Your task to perform on an android device: Search for "logitech g pro" on costco.com, select the first entry, add it to the cart, then select checkout. Image 0: 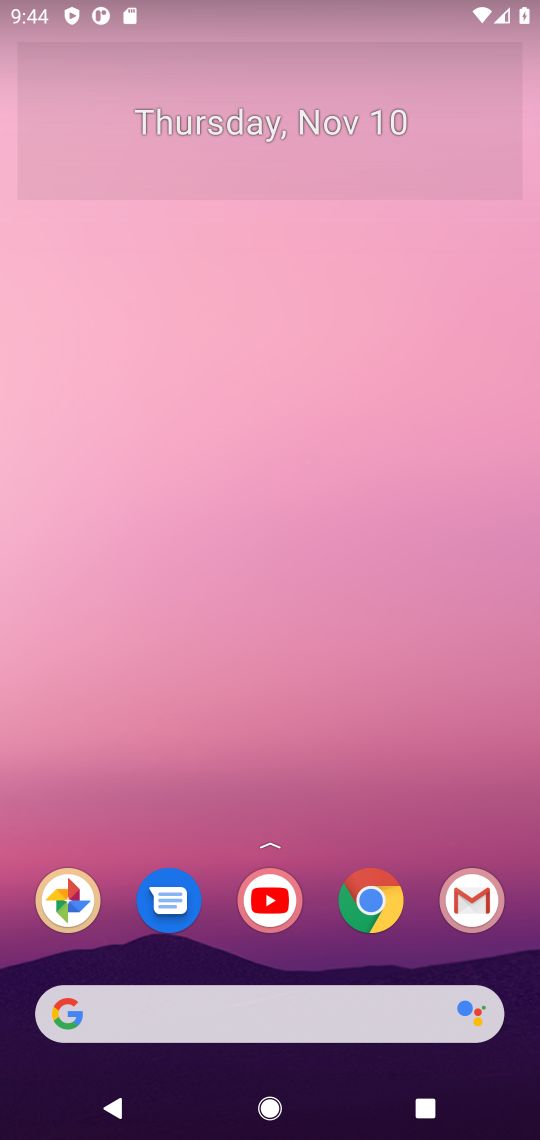
Step 0: click (371, 898)
Your task to perform on an android device: Search for "logitech g pro" on costco.com, select the first entry, add it to the cart, then select checkout. Image 1: 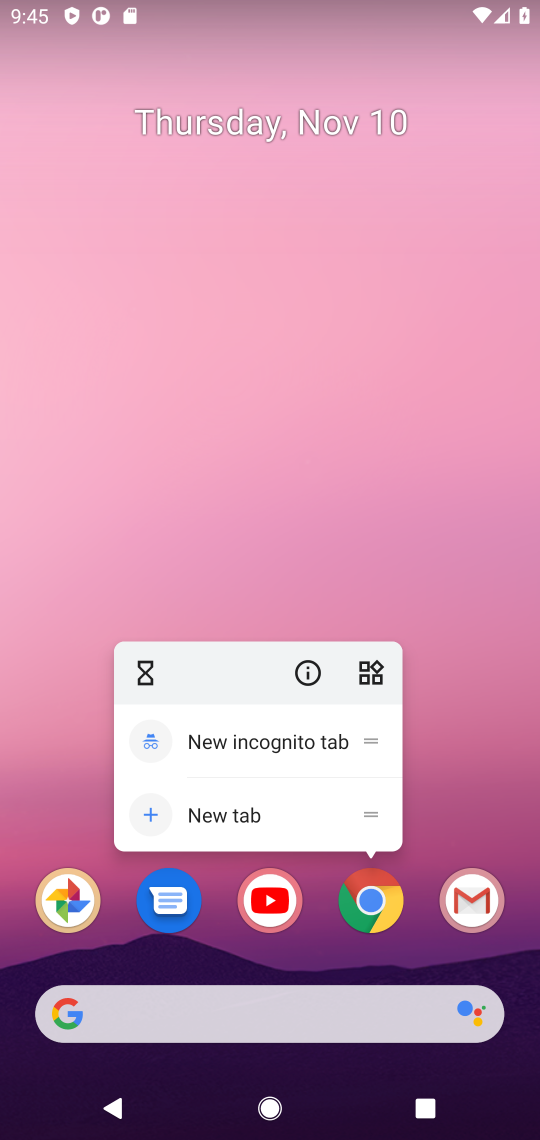
Step 1: click (371, 900)
Your task to perform on an android device: Search for "logitech g pro" on costco.com, select the first entry, add it to the cart, then select checkout. Image 2: 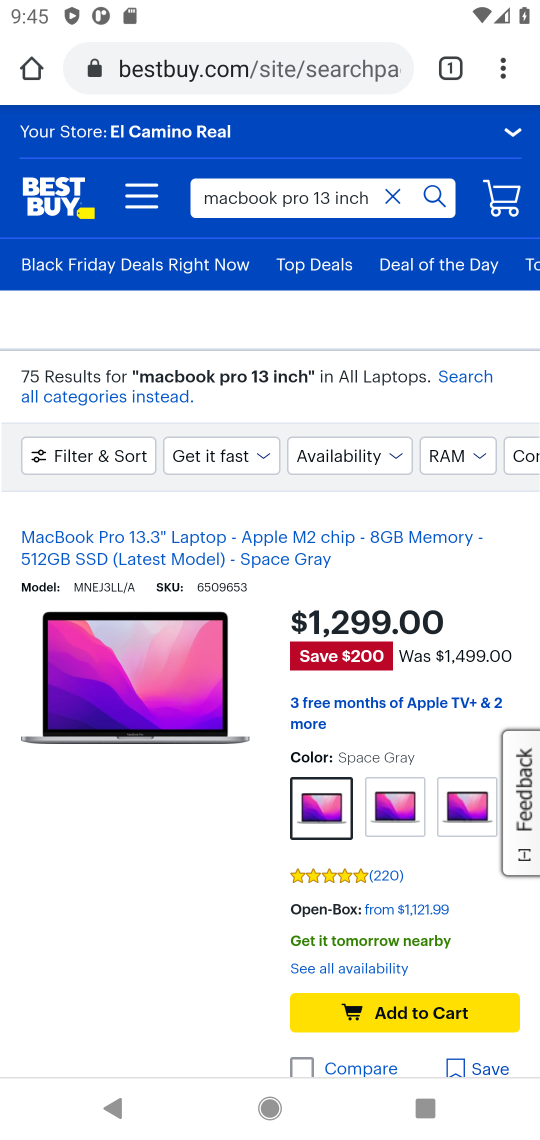
Step 2: click (281, 69)
Your task to perform on an android device: Search for "logitech g pro" on costco.com, select the first entry, add it to the cart, then select checkout. Image 3: 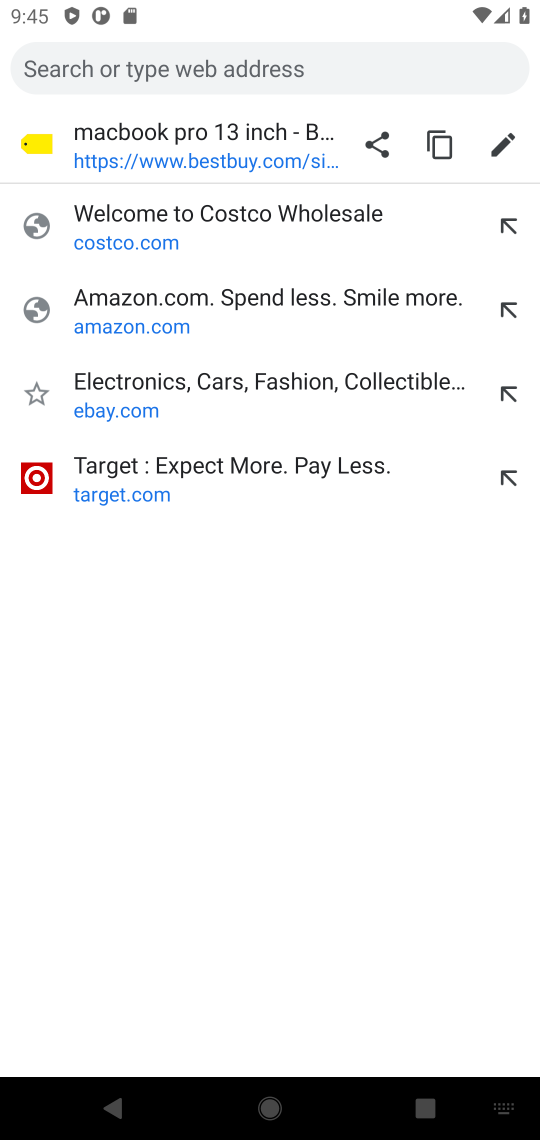
Step 3: type " costco.com"
Your task to perform on an android device: Search for "logitech g pro" on costco.com, select the first entry, add it to the cart, then select checkout. Image 4: 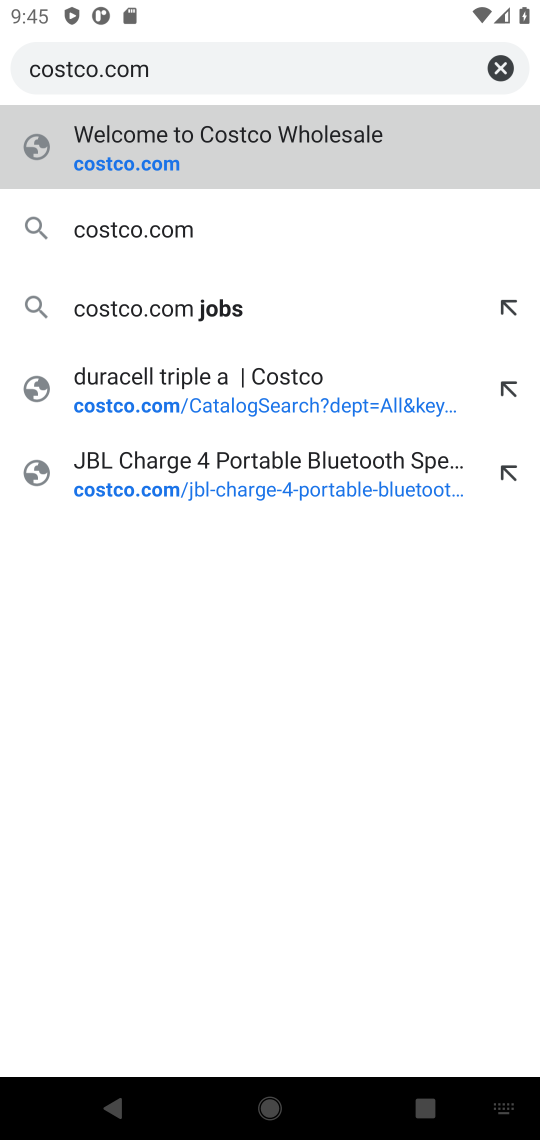
Step 4: press enter
Your task to perform on an android device: Search for "logitech g pro" on costco.com, select the first entry, add it to the cart, then select checkout. Image 5: 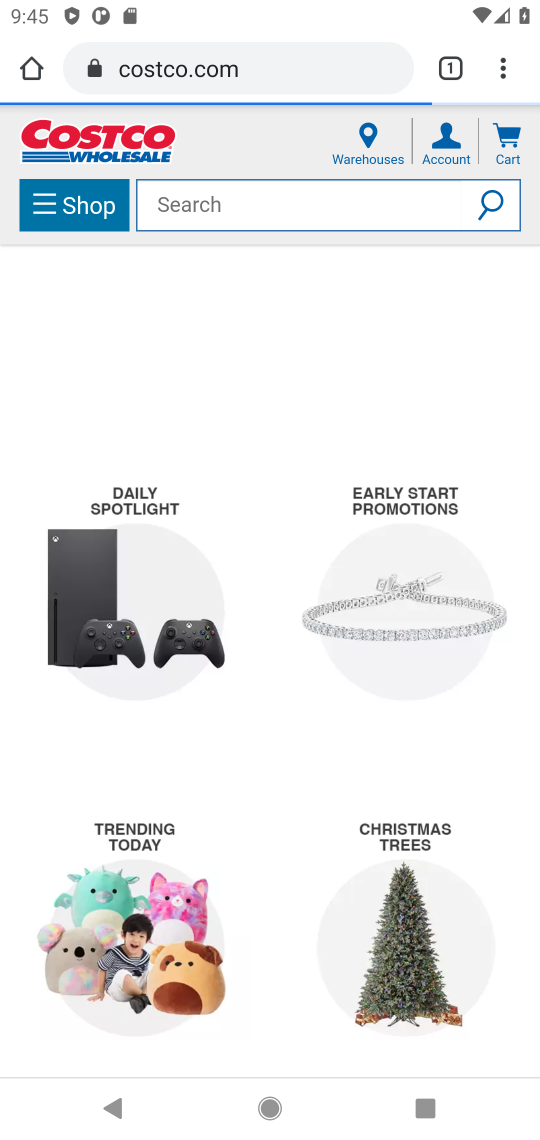
Step 5: click (331, 195)
Your task to perform on an android device: Search for "logitech g pro" on costco.com, select the first entry, add it to the cart, then select checkout. Image 6: 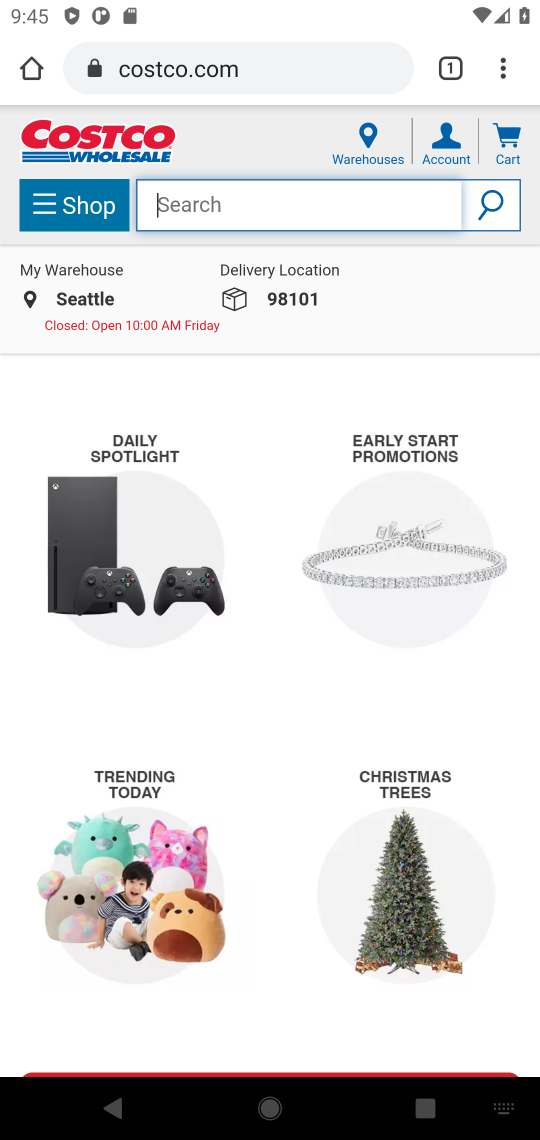
Step 6: type "logitech g pro"
Your task to perform on an android device: Search for "logitech g pro" on costco.com, select the first entry, add it to the cart, then select checkout. Image 7: 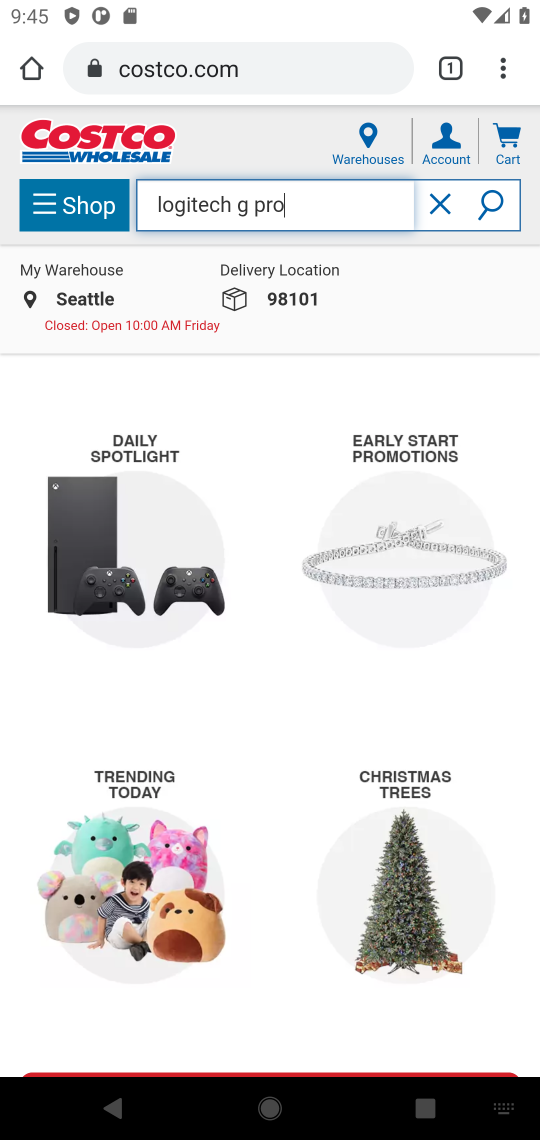
Step 7: press enter
Your task to perform on an android device: Search for "logitech g pro" on costco.com, select the first entry, add it to the cart, then select checkout. Image 8: 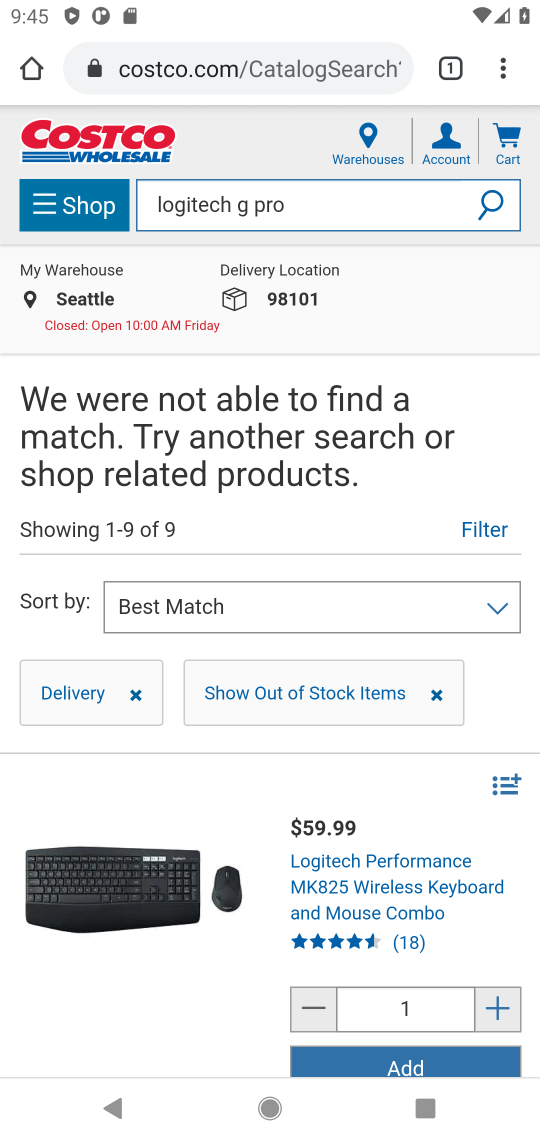
Step 8: task complete